Your task to perform on an android device: Show me recent news Image 0: 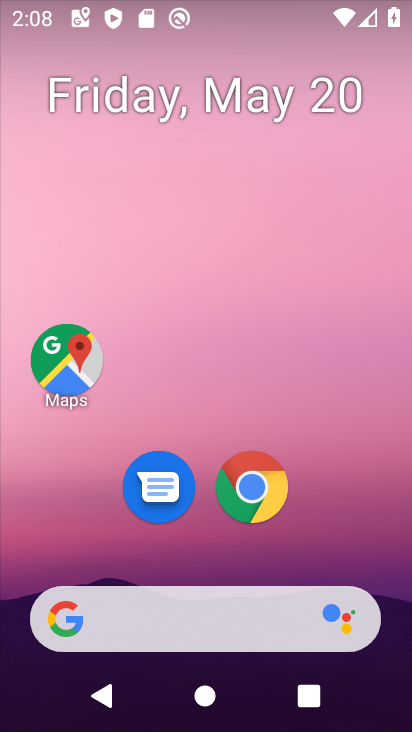
Step 0: drag from (356, 538) to (394, 121)
Your task to perform on an android device: Show me recent news Image 1: 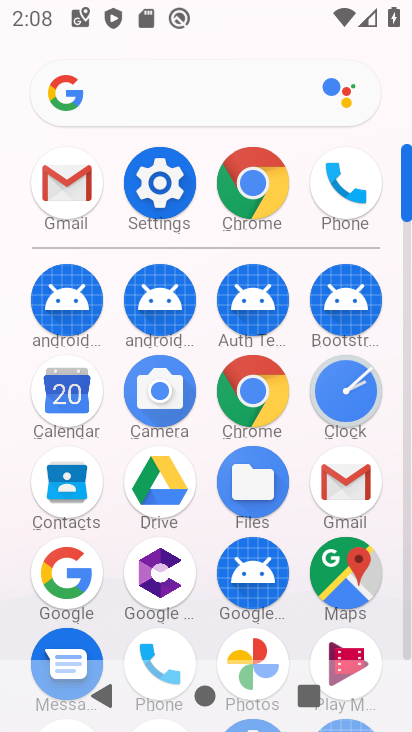
Step 1: click (240, 185)
Your task to perform on an android device: Show me recent news Image 2: 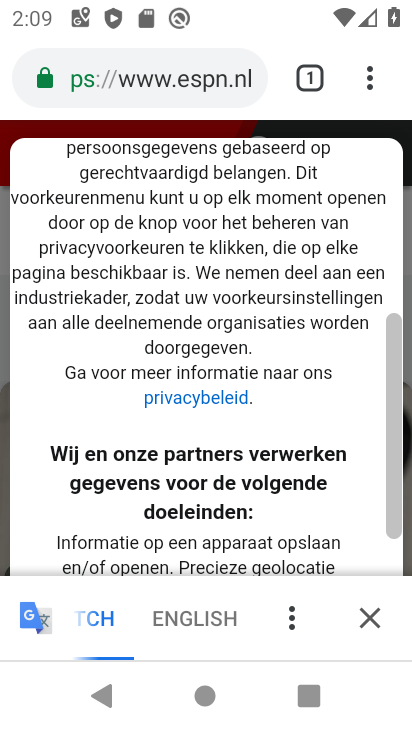
Step 2: task complete